Your task to perform on an android device: turn off sleep mode Image 0: 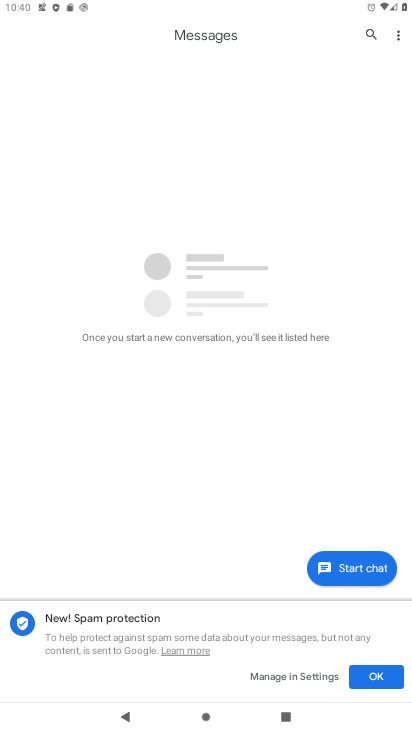
Step 0: press home button
Your task to perform on an android device: turn off sleep mode Image 1: 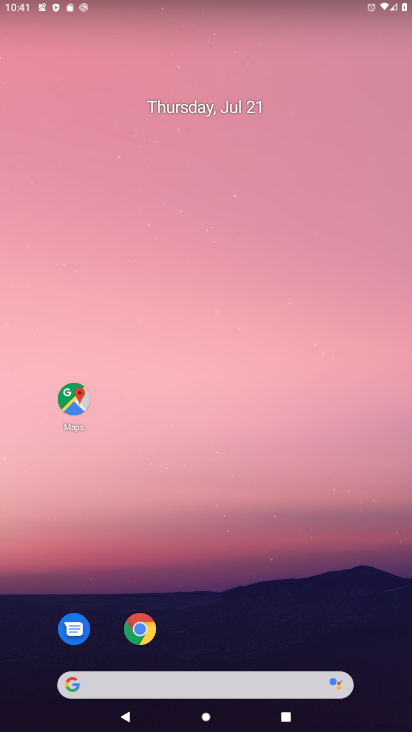
Step 1: drag from (234, 647) to (262, 59)
Your task to perform on an android device: turn off sleep mode Image 2: 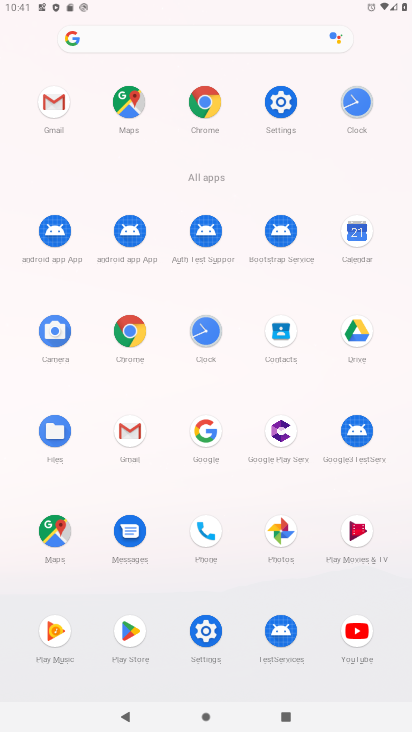
Step 2: click (207, 623)
Your task to perform on an android device: turn off sleep mode Image 3: 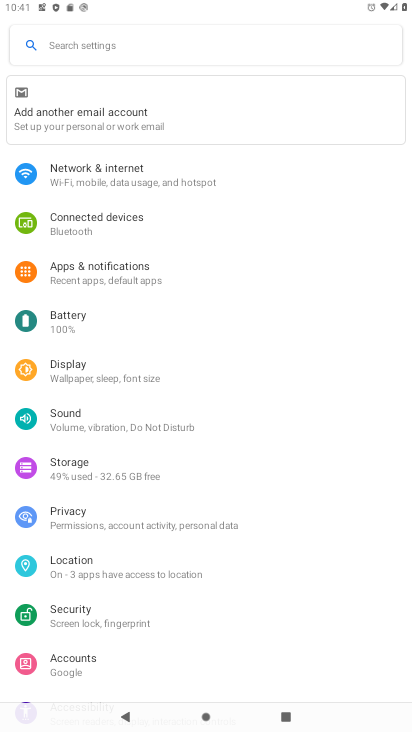
Step 3: click (88, 367)
Your task to perform on an android device: turn off sleep mode Image 4: 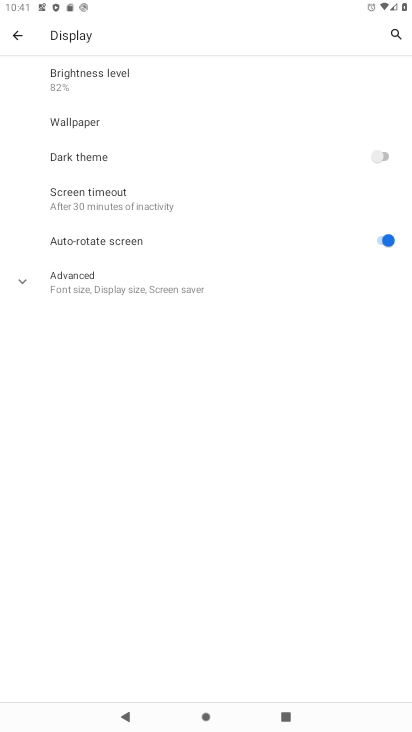
Step 4: task complete